Your task to perform on an android device: Go to Google maps Image 0: 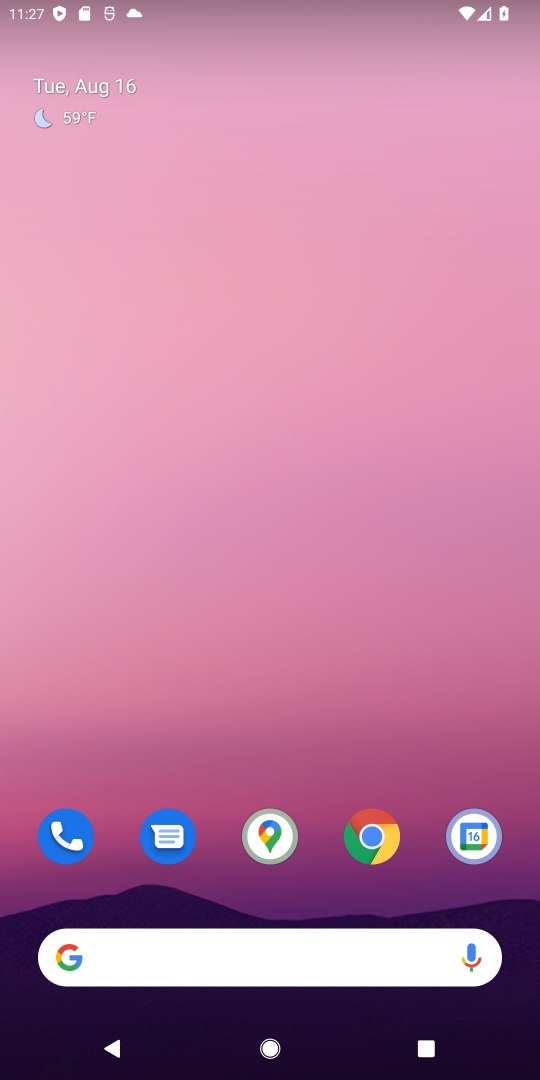
Step 0: click (270, 832)
Your task to perform on an android device: Go to Google maps Image 1: 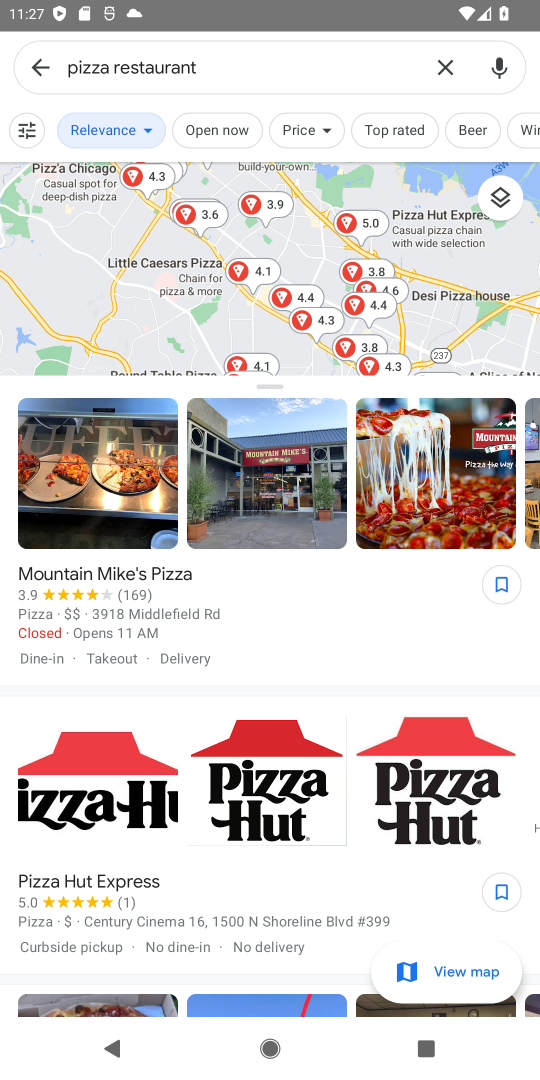
Step 1: task complete